Your task to perform on an android device: check google app version Image 0: 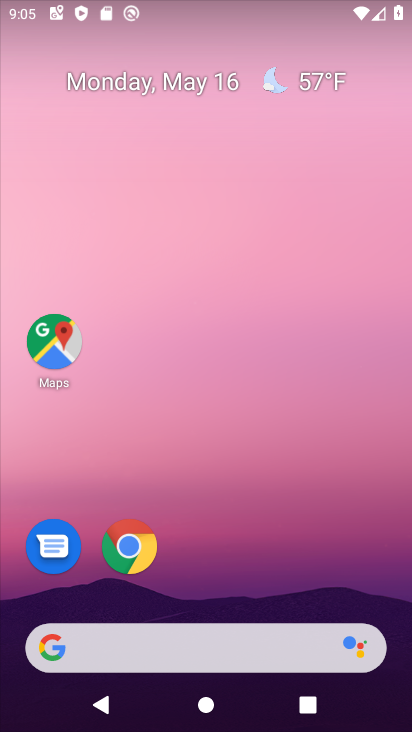
Step 0: drag from (319, 453) to (288, 130)
Your task to perform on an android device: check google app version Image 1: 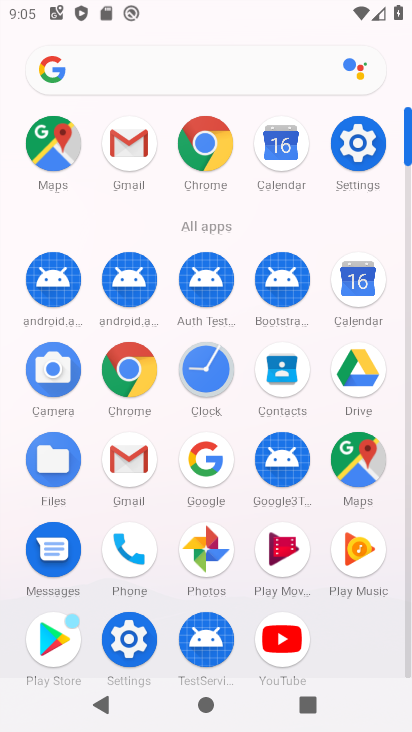
Step 1: click (210, 479)
Your task to perform on an android device: check google app version Image 2: 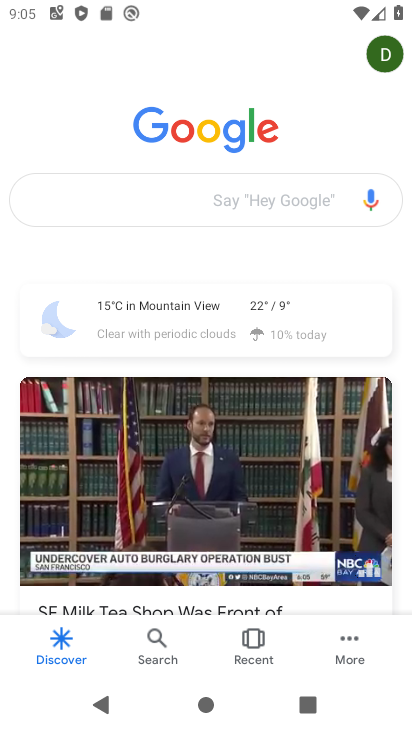
Step 2: click (344, 643)
Your task to perform on an android device: check google app version Image 3: 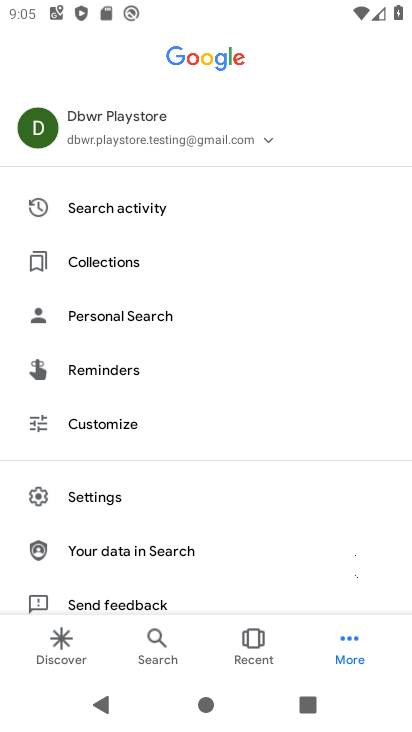
Step 3: drag from (210, 522) to (217, 135)
Your task to perform on an android device: check google app version Image 4: 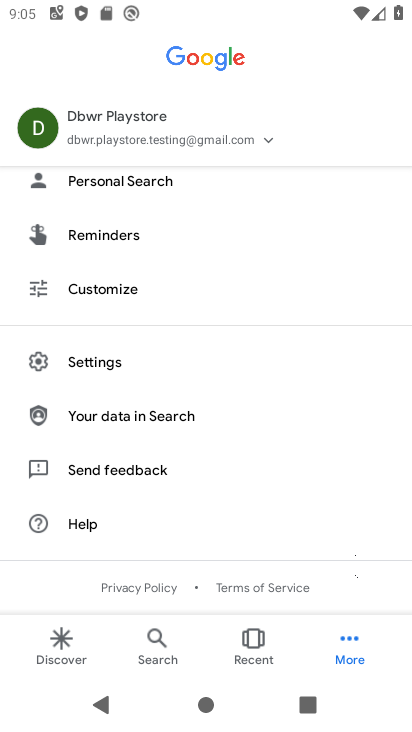
Step 4: click (102, 365)
Your task to perform on an android device: check google app version Image 5: 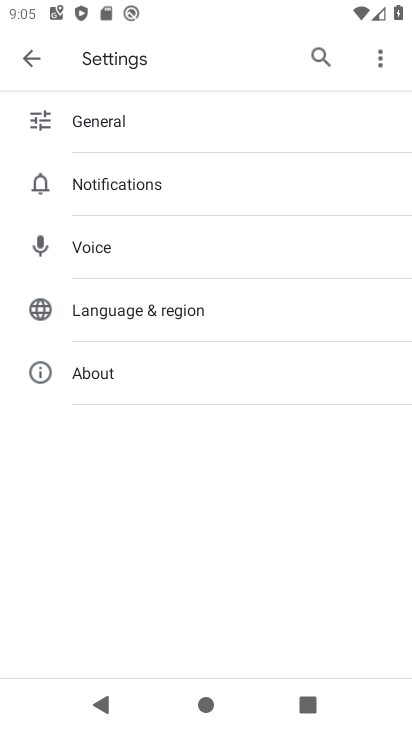
Step 5: click (71, 370)
Your task to perform on an android device: check google app version Image 6: 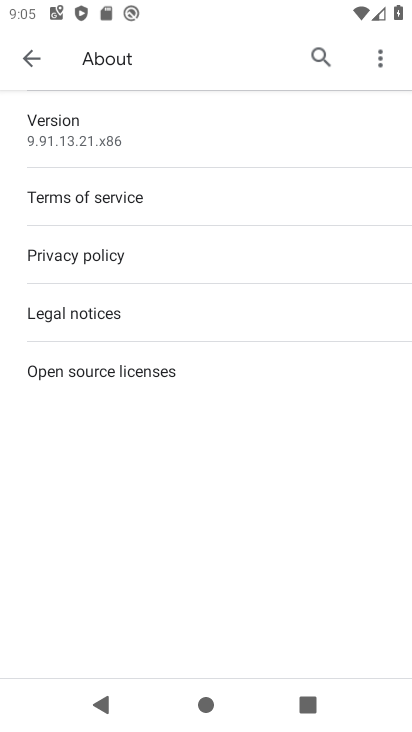
Step 6: click (69, 132)
Your task to perform on an android device: check google app version Image 7: 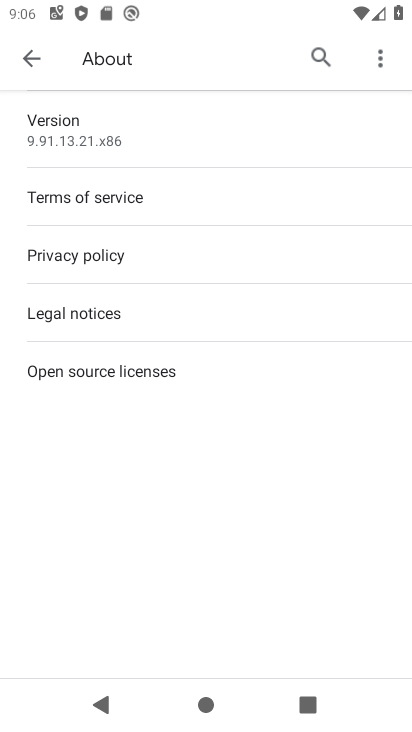
Step 7: task complete